Your task to perform on an android device: change text size in settings app Image 0: 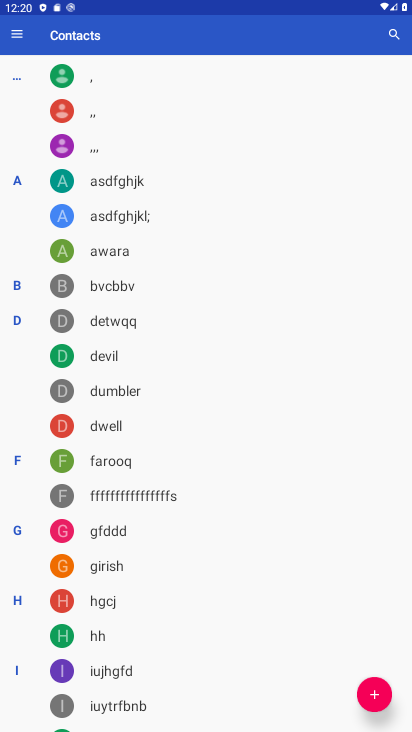
Step 0: press home button
Your task to perform on an android device: change text size in settings app Image 1: 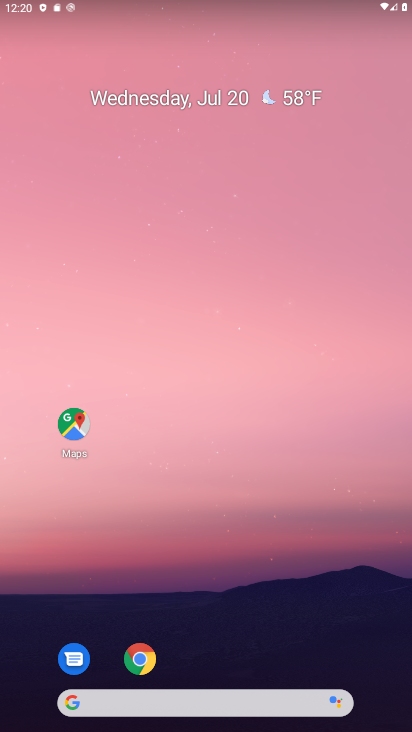
Step 1: drag from (204, 675) to (209, 1)
Your task to perform on an android device: change text size in settings app Image 2: 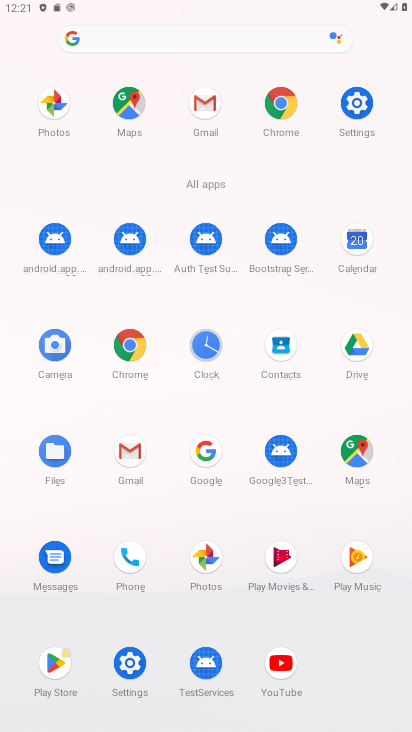
Step 2: click (353, 96)
Your task to perform on an android device: change text size in settings app Image 3: 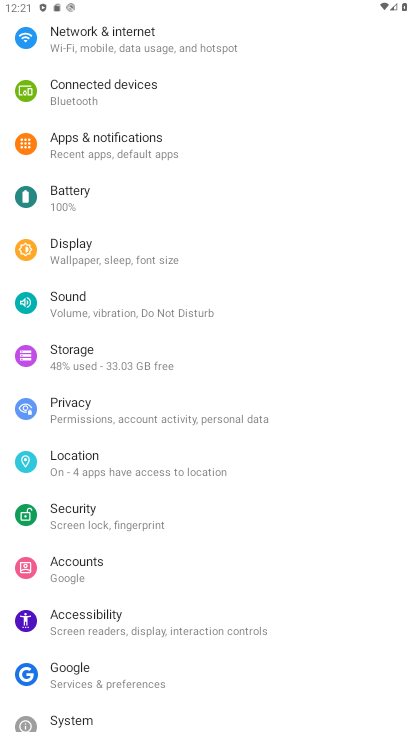
Step 3: click (108, 243)
Your task to perform on an android device: change text size in settings app Image 4: 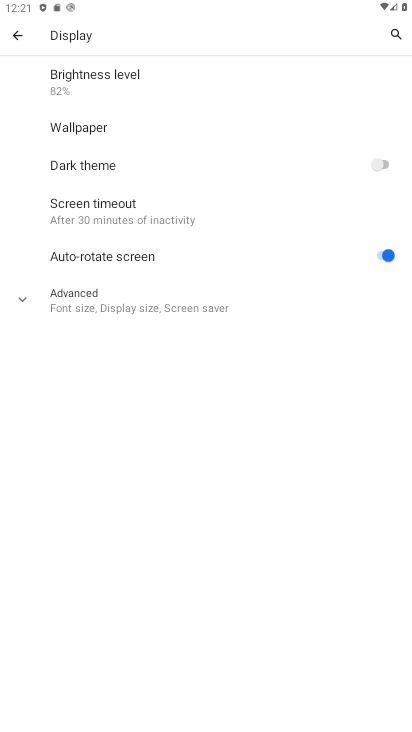
Step 4: click (32, 296)
Your task to perform on an android device: change text size in settings app Image 5: 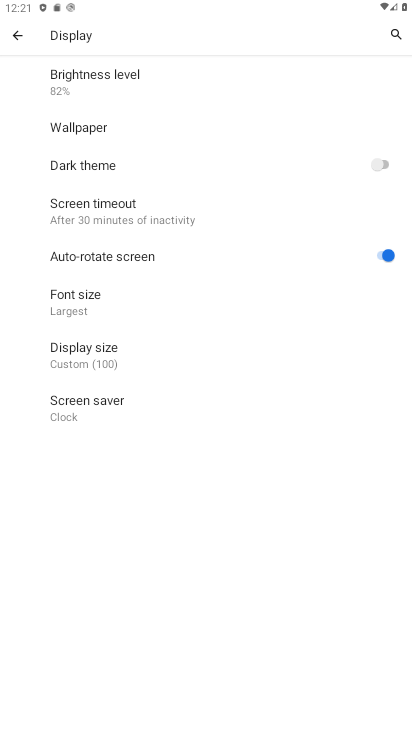
Step 5: click (100, 301)
Your task to perform on an android device: change text size in settings app Image 6: 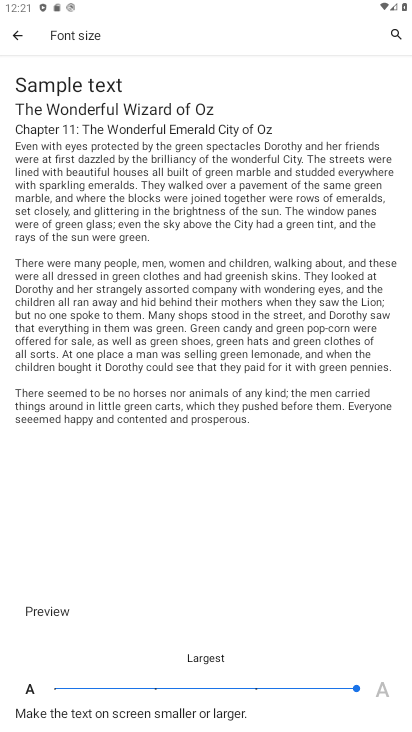
Step 6: click (261, 687)
Your task to perform on an android device: change text size in settings app Image 7: 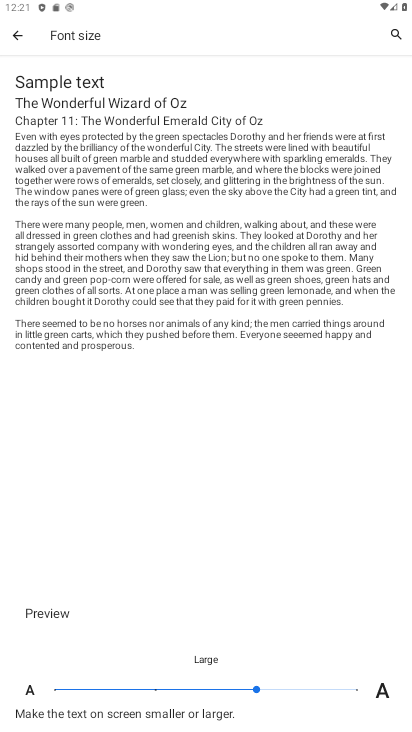
Step 7: task complete